Your task to perform on an android device: Open calendar and show me the second week of next month Image 0: 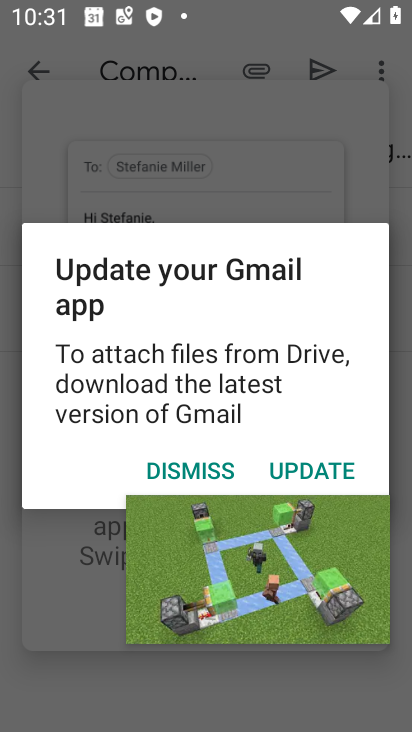
Step 0: click (185, 462)
Your task to perform on an android device: Open calendar and show me the second week of next month Image 1: 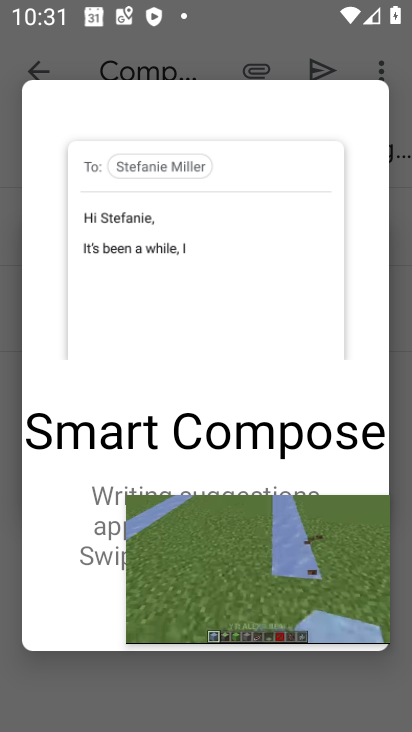
Step 1: click (308, 378)
Your task to perform on an android device: Open calendar and show me the second week of next month Image 2: 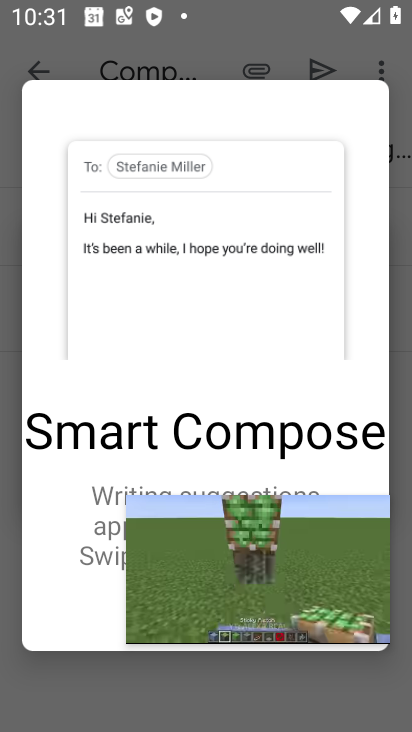
Step 2: click (223, 403)
Your task to perform on an android device: Open calendar and show me the second week of next month Image 3: 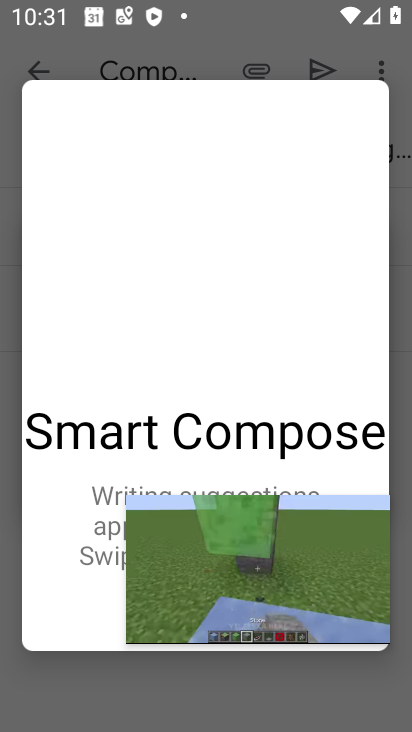
Step 3: click (223, 403)
Your task to perform on an android device: Open calendar and show me the second week of next month Image 4: 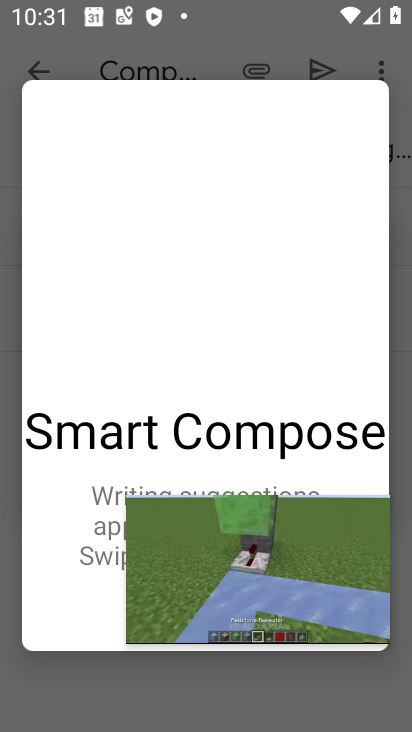
Step 4: click (223, 405)
Your task to perform on an android device: Open calendar and show me the second week of next month Image 5: 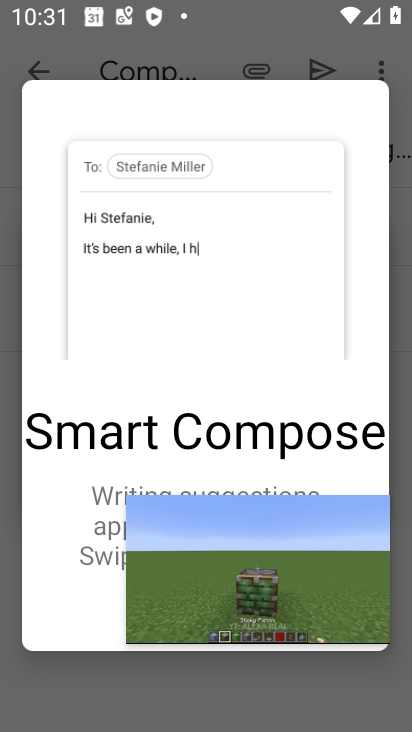
Step 5: click (230, 447)
Your task to perform on an android device: Open calendar and show me the second week of next month Image 6: 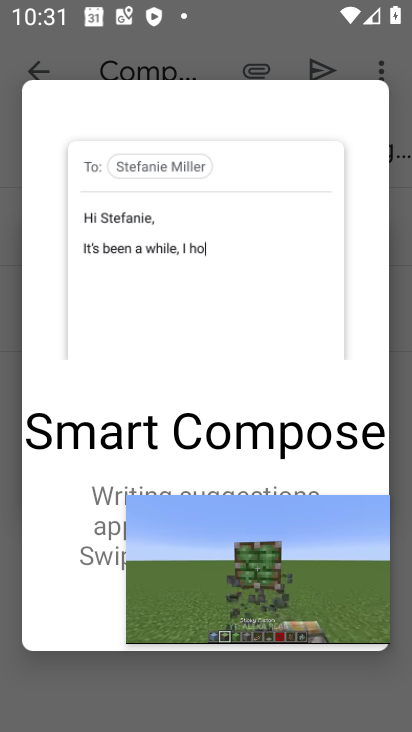
Step 6: click (230, 447)
Your task to perform on an android device: Open calendar and show me the second week of next month Image 7: 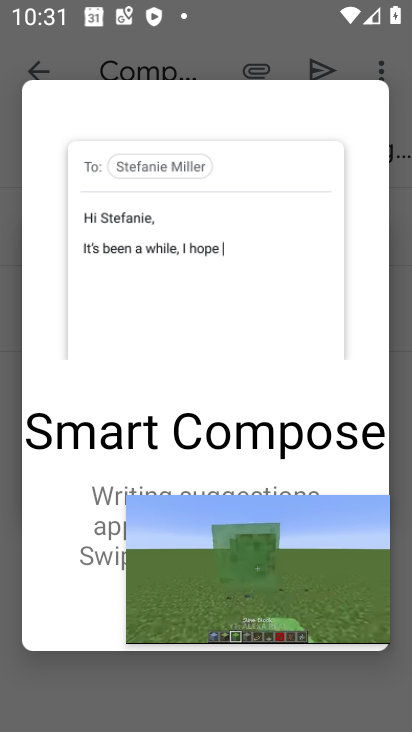
Step 7: click (231, 447)
Your task to perform on an android device: Open calendar and show me the second week of next month Image 8: 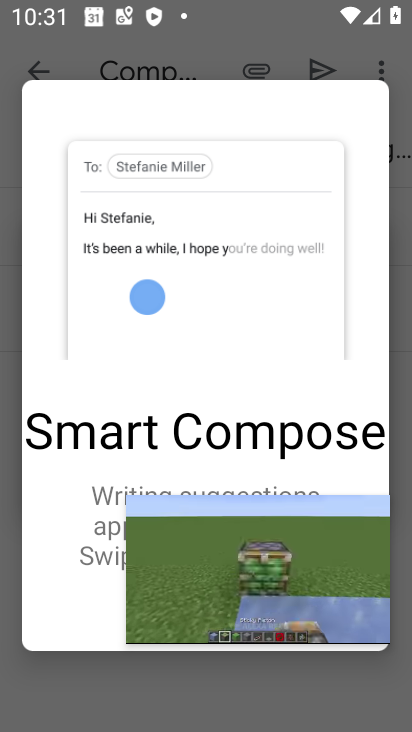
Step 8: click (44, 577)
Your task to perform on an android device: Open calendar and show me the second week of next month Image 9: 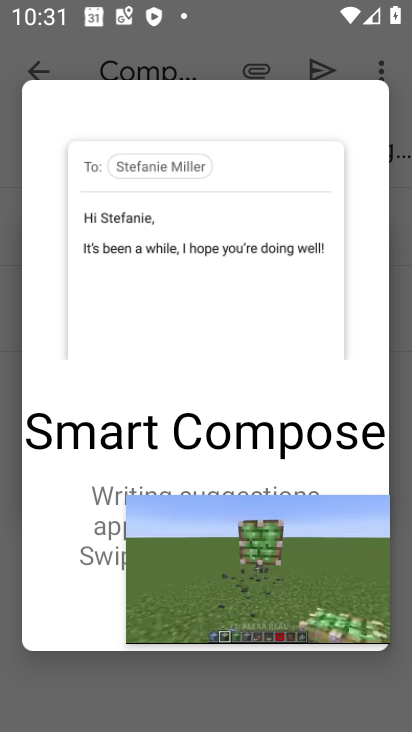
Step 9: click (43, 565)
Your task to perform on an android device: Open calendar and show me the second week of next month Image 10: 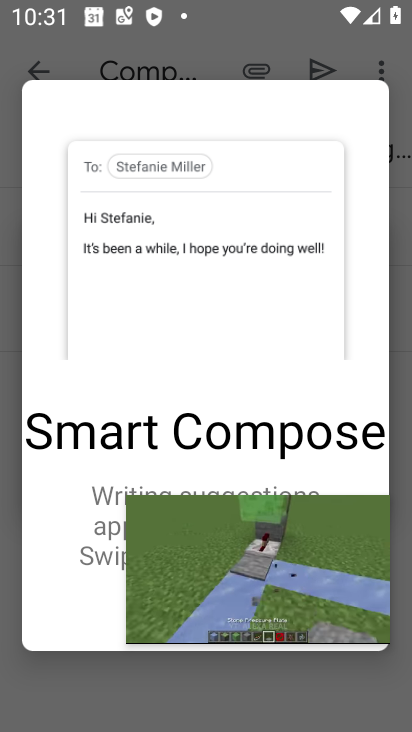
Step 10: click (90, 579)
Your task to perform on an android device: Open calendar and show me the second week of next month Image 11: 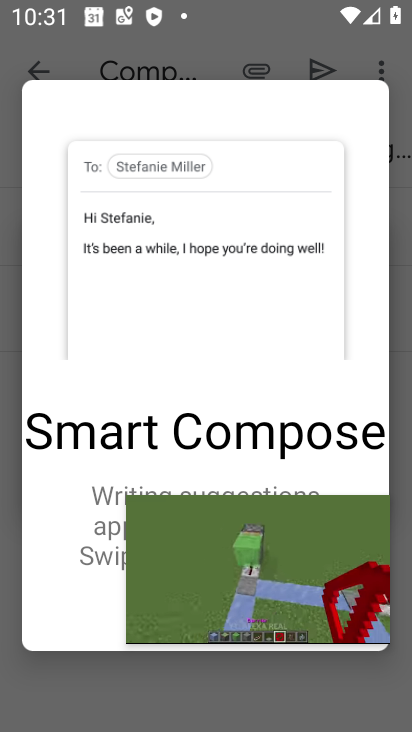
Step 11: click (132, 569)
Your task to perform on an android device: Open calendar and show me the second week of next month Image 12: 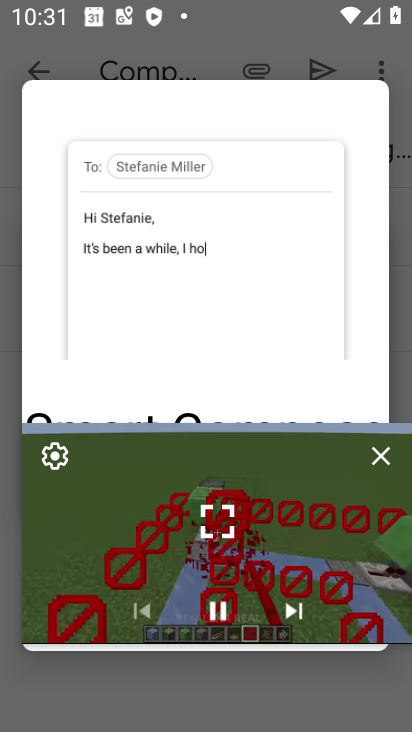
Step 12: click (397, 467)
Your task to perform on an android device: Open calendar and show me the second week of next month Image 13: 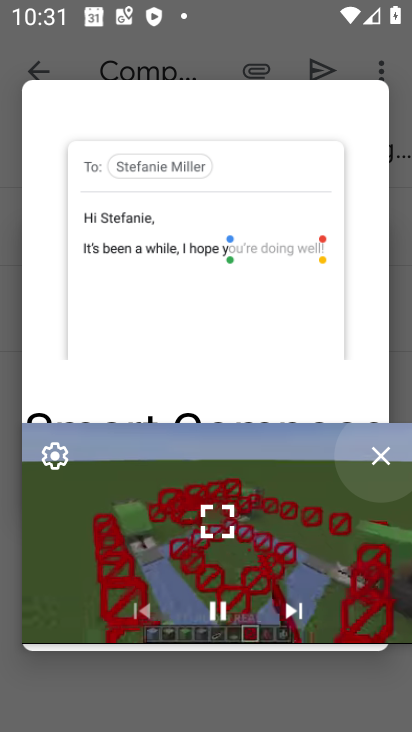
Step 13: click (375, 434)
Your task to perform on an android device: Open calendar and show me the second week of next month Image 14: 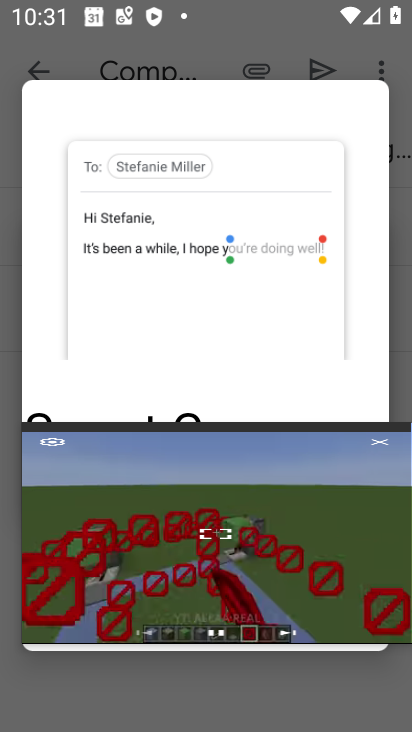
Step 14: click (380, 445)
Your task to perform on an android device: Open calendar and show me the second week of next month Image 15: 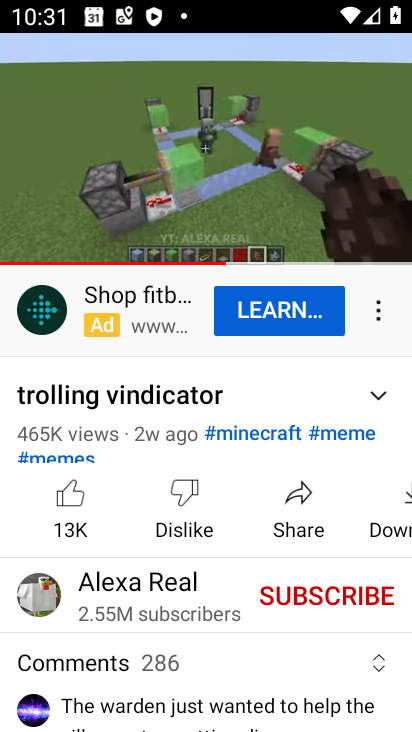
Step 15: press home button
Your task to perform on an android device: Open calendar and show me the second week of next month Image 16: 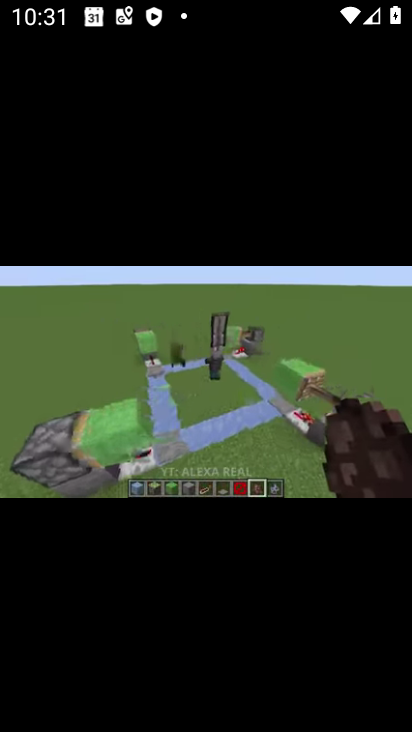
Step 16: press home button
Your task to perform on an android device: Open calendar and show me the second week of next month Image 17: 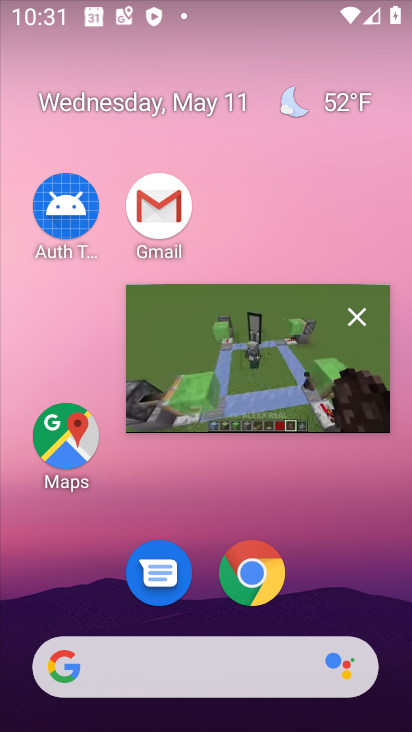
Step 17: press home button
Your task to perform on an android device: Open calendar and show me the second week of next month Image 18: 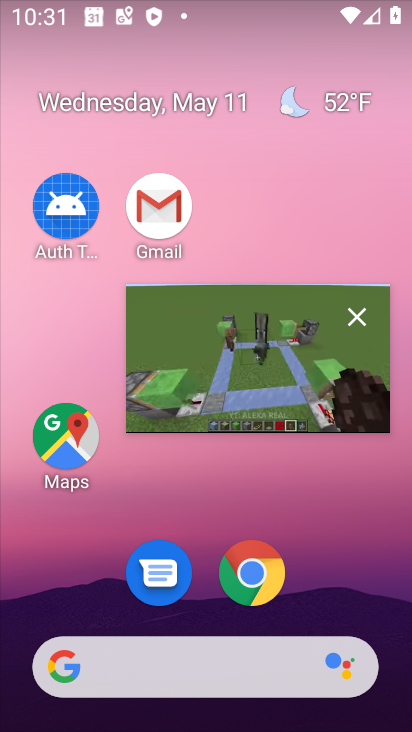
Step 18: press home button
Your task to perform on an android device: Open calendar and show me the second week of next month Image 19: 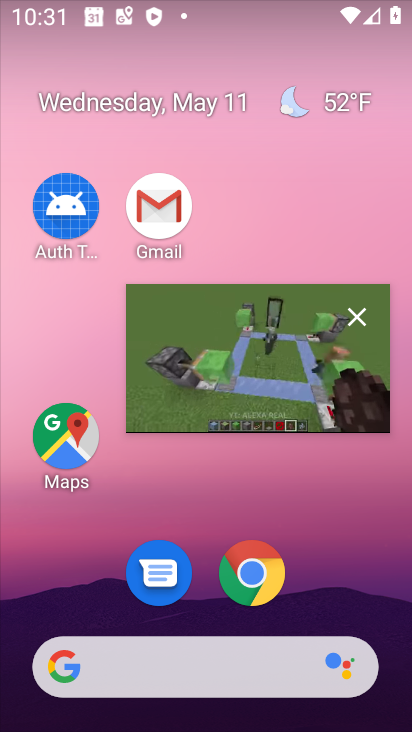
Step 19: press home button
Your task to perform on an android device: Open calendar and show me the second week of next month Image 20: 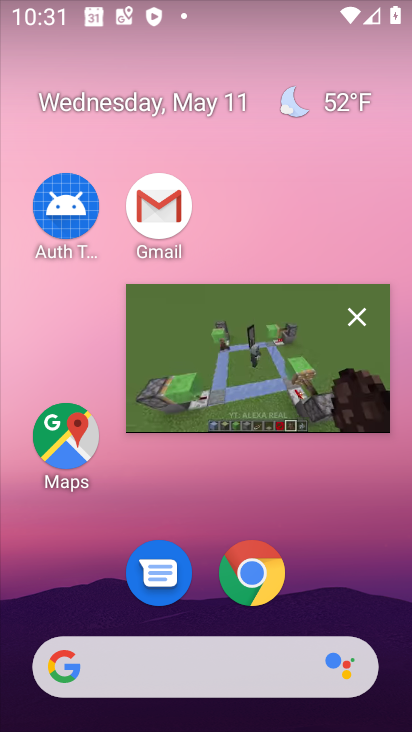
Step 20: press home button
Your task to perform on an android device: Open calendar and show me the second week of next month Image 21: 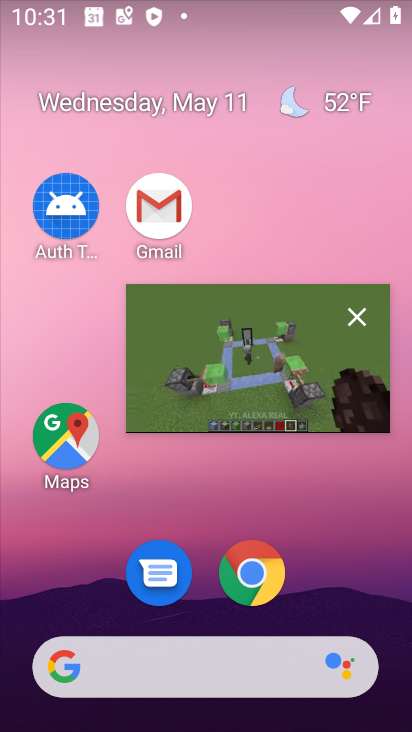
Step 21: press home button
Your task to perform on an android device: Open calendar and show me the second week of next month Image 22: 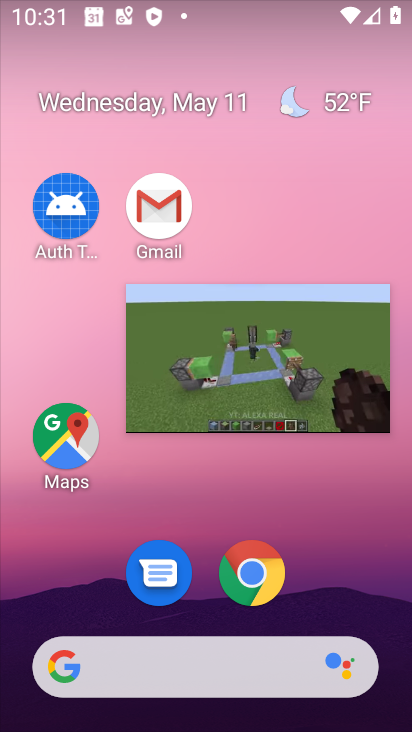
Step 22: press home button
Your task to perform on an android device: Open calendar and show me the second week of next month Image 23: 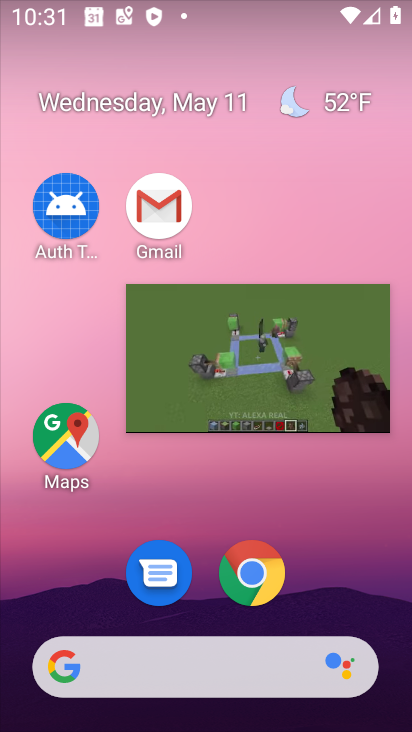
Step 23: click (361, 313)
Your task to perform on an android device: Open calendar and show me the second week of next month Image 24: 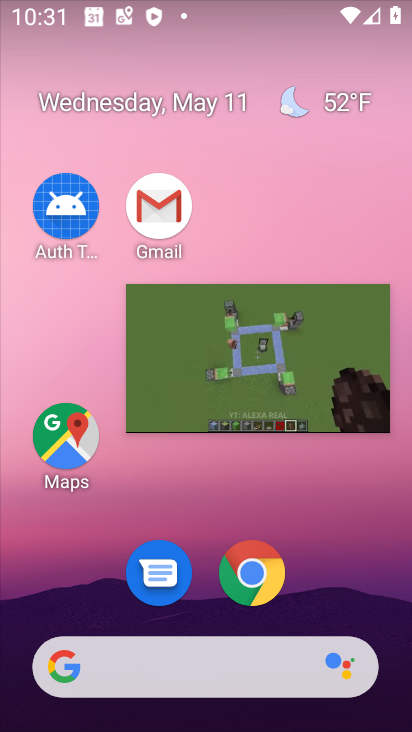
Step 24: click (352, 487)
Your task to perform on an android device: Open calendar and show me the second week of next month Image 25: 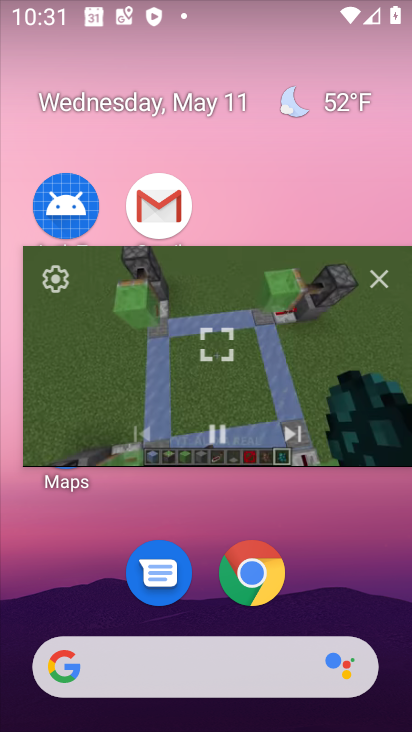
Step 25: click (387, 276)
Your task to perform on an android device: Open calendar and show me the second week of next month Image 26: 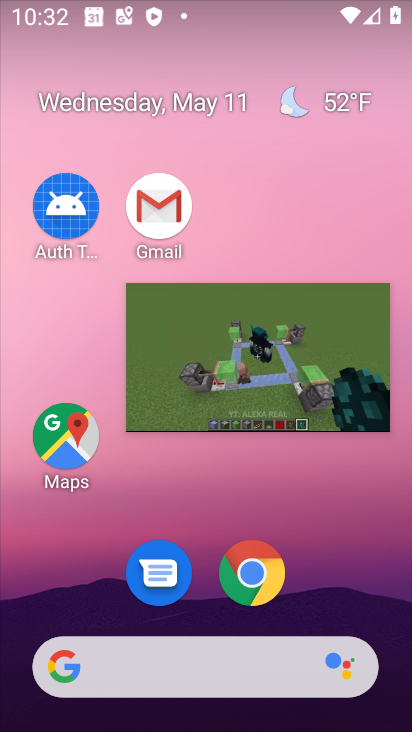
Step 26: press home button
Your task to perform on an android device: Open calendar and show me the second week of next month Image 27: 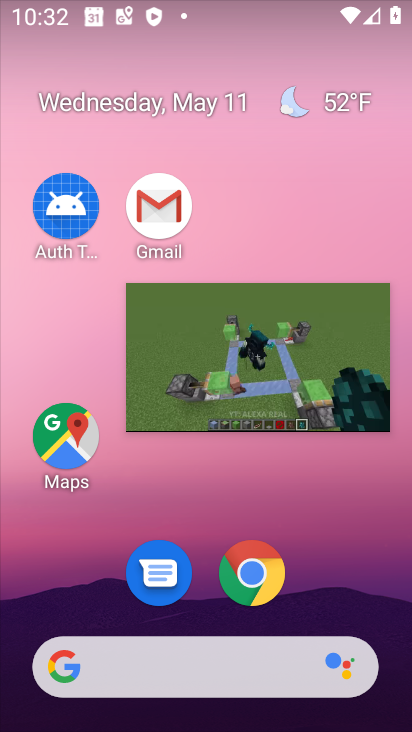
Step 27: drag from (334, 527) to (298, 444)
Your task to perform on an android device: Open calendar and show me the second week of next month Image 28: 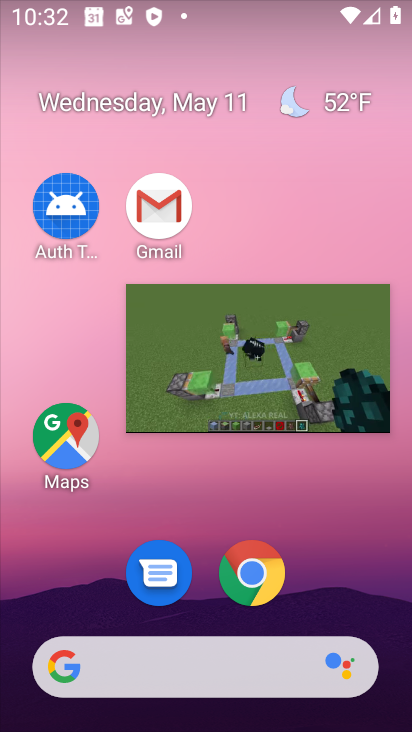
Step 28: click (271, 401)
Your task to perform on an android device: Open calendar and show me the second week of next month Image 29: 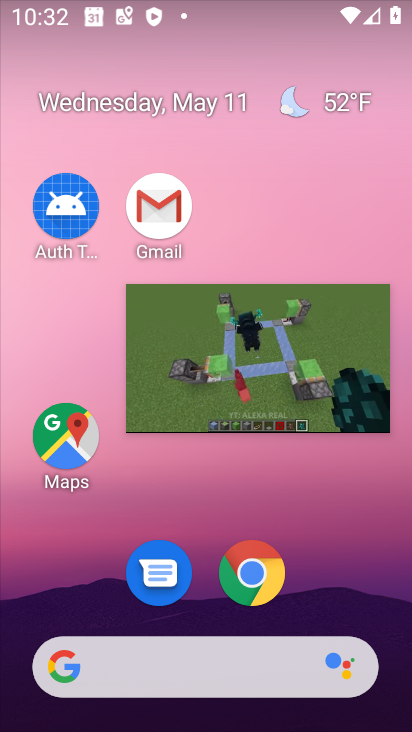
Step 29: click (265, 423)
Your task to perform on an android device: Open calendar and show me the second week of next month Image 30: 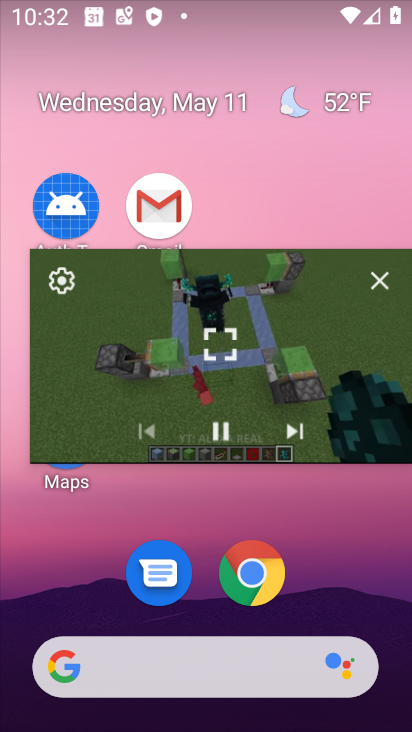
Step 30: click (258, 408)
Your task to perform on an android device: Open calendar and show me the second week of next month Image 31: 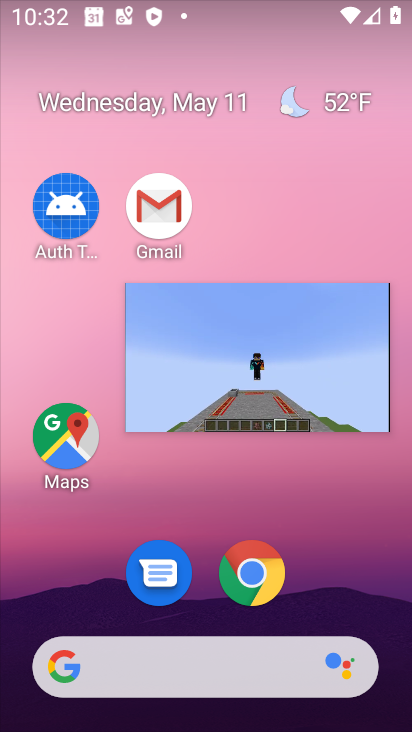
Step 31: click (244, 405)
Your task to perform on an android device: Open calendar and show me the second week of next month Image 32: 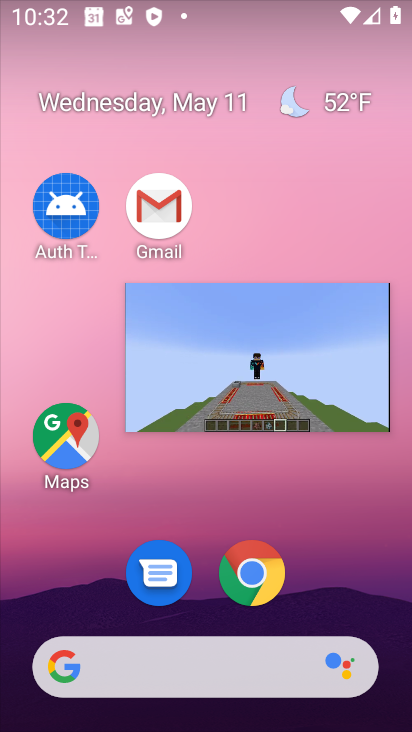
Step 32: click (266, 364)
Your task to perform on an android device: Open calendar and show me the second week of next month Image 33: 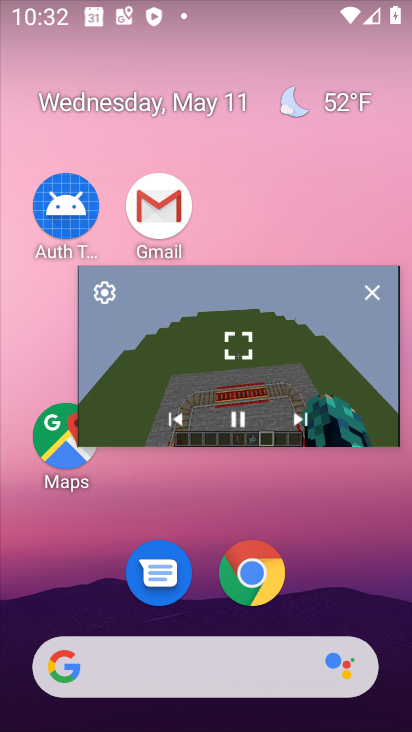
Step 33: click (266, 364)
Your task to perform on an android device: Open calendar and show me the second week of next month Image 34: 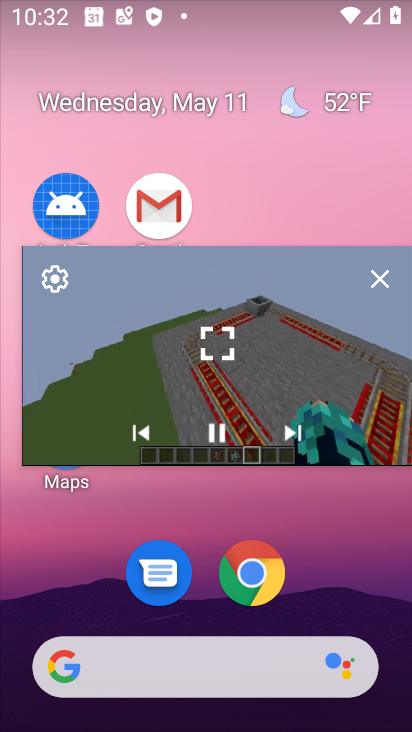
Step 34: click (268, 373)
Your task to perform on an android device: Open calendar and show me the second week of next month Image 35: 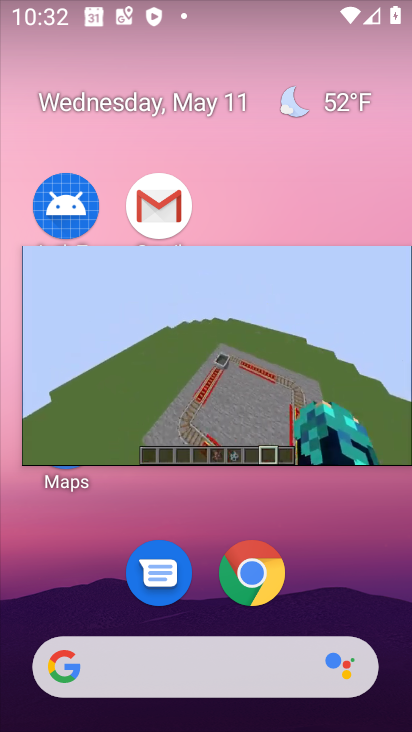
Step 35: click (222, 428)
Your task to perform on an android device: Open calendar and show me the second week of next month Image 36: 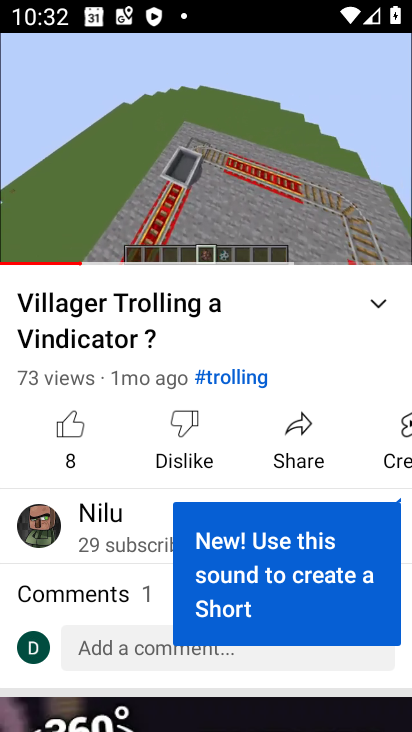
Step 36: press back button
Your task to perform on an android device: Open calendar and show me the second week of next month Image 37: 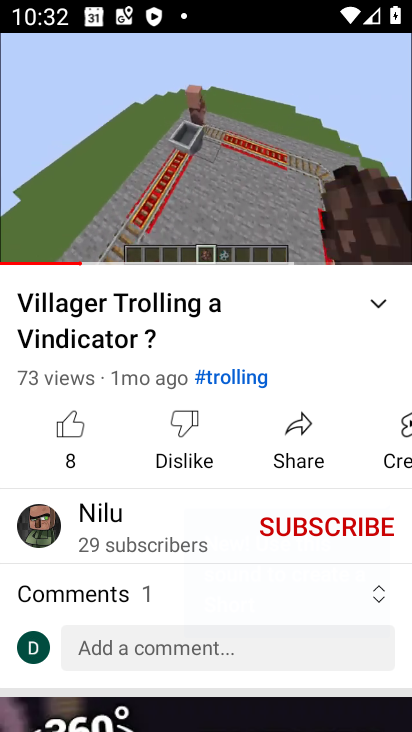
Step 37: press back button
Your task to perform on an android device: Open calendar and show me the second week of next month Image 38: 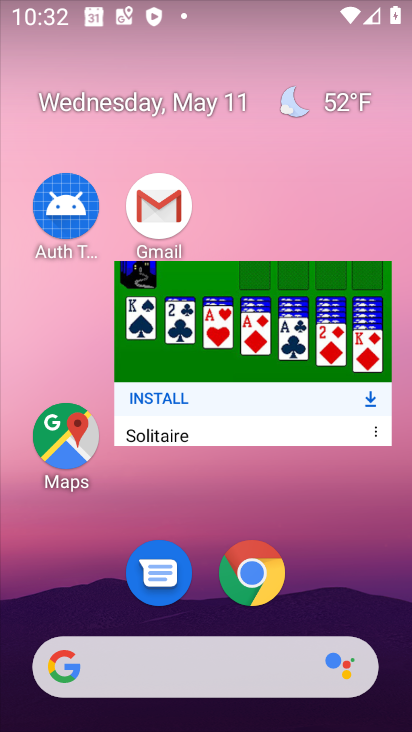
Step 38: press back button
Your task to perform on an android device: Open calendar and show me the second week of next month Image 39: 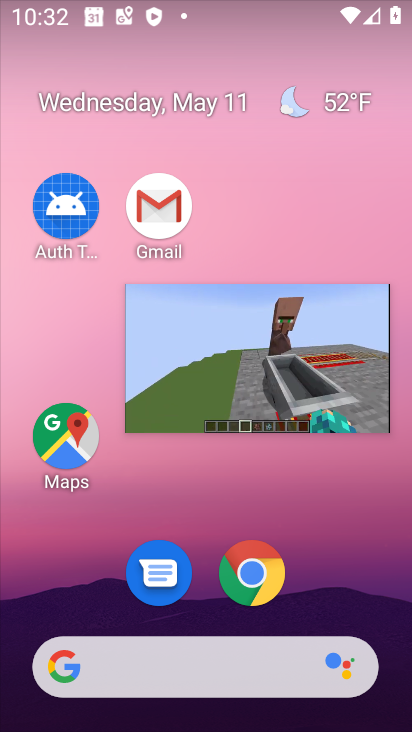
Step 39: press back button
Your task to perform on an android device: Open calendar and show me the second week of next month Image 40: 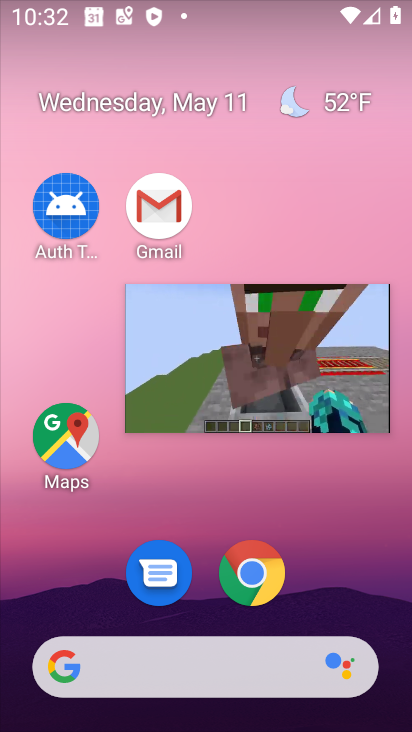
Step 40: click (318, 338)
Your task to perform on an android device: Open calendar and show me the second week of next month Image 41: 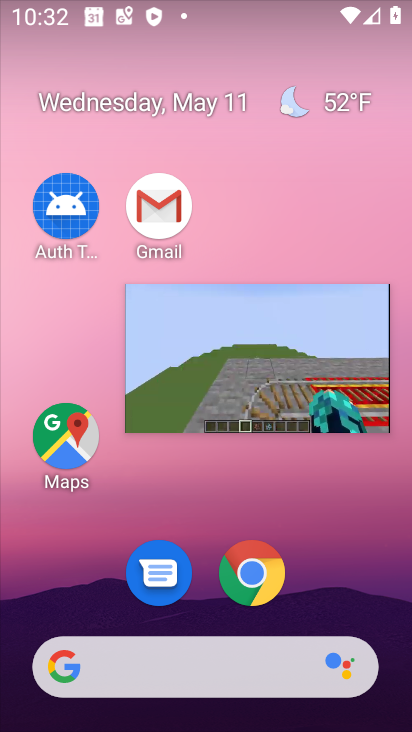
Step 41: click (318, 338)
Your task to perform on an android device: Open calendar and show me the second week of next month Image 42: 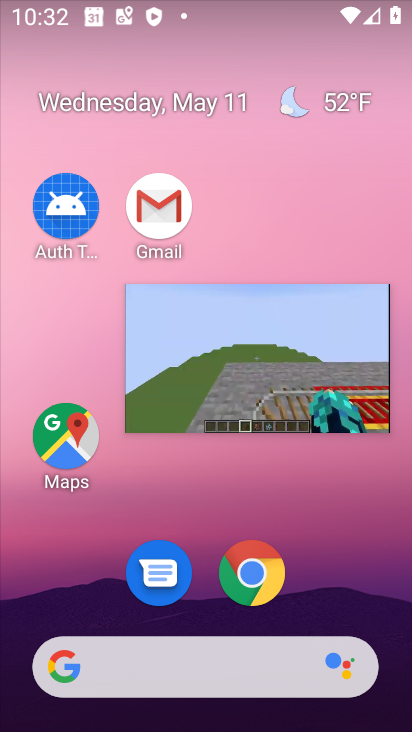
Step 42: click (319, 337)
Your task to perform on an android device: Open calendar and show me the second week of next month Image 43: 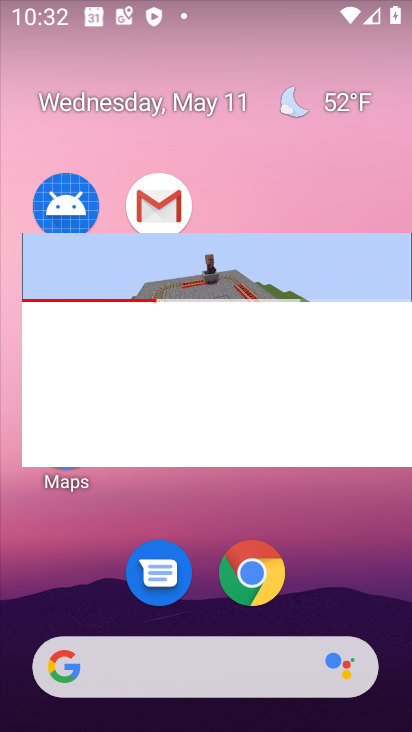
Step 43: click (387, 275)
Your task to perform on an android device: Open calendar and show me the second week of next month Image 44: 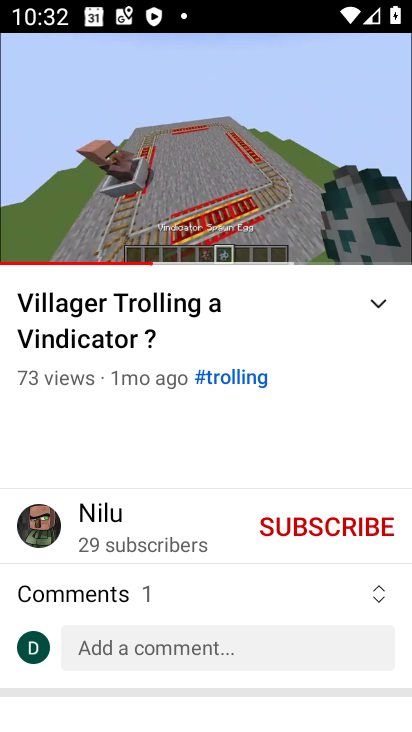
Step 44: click (387, 275)
Your task to perform on an android device: Open calendar and show me the second week of next month Image 45: 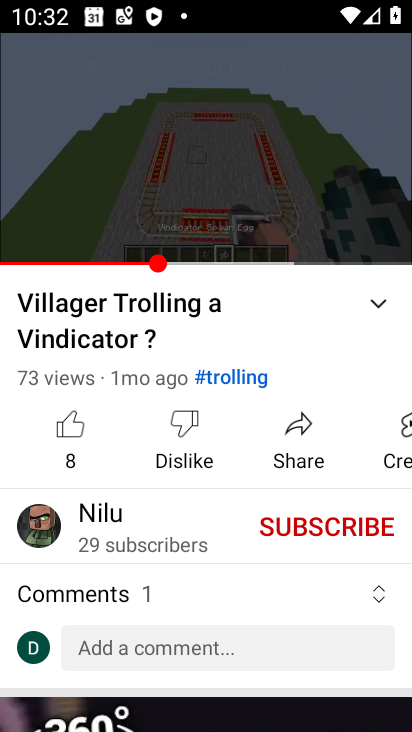
Step 45: click (387, 276)
Your task to perform on an android device: Open calendar and show me the second week of next month Image 46: 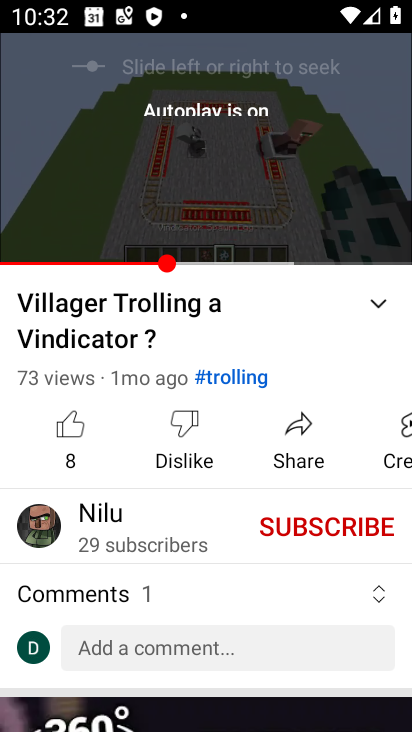
Step 46: click (388, 302)
Your task to perform on an android device: Open calendar and show me the second week of next month Image 47: 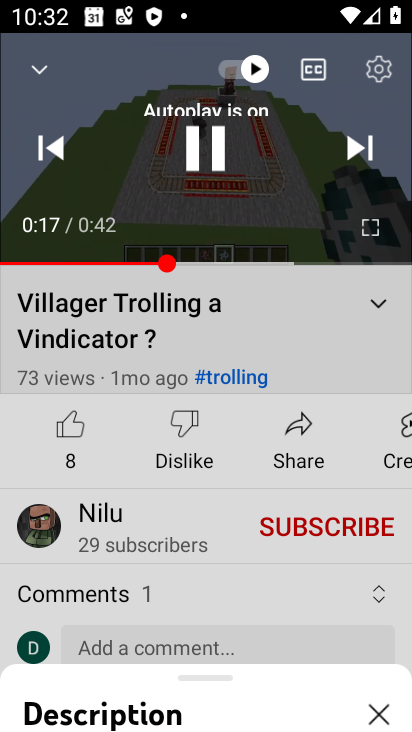
Step 47: click (388, 303)
Your task to perform on an android device: Open calendar and show me the second week of next month Image 48: 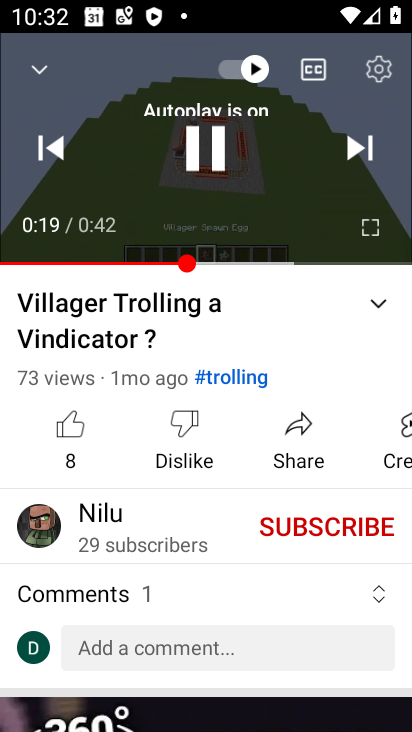
Step 48: click (217, 148)
Your task to perform on an android device: Open calendar and show me the second week of next month Image 49: 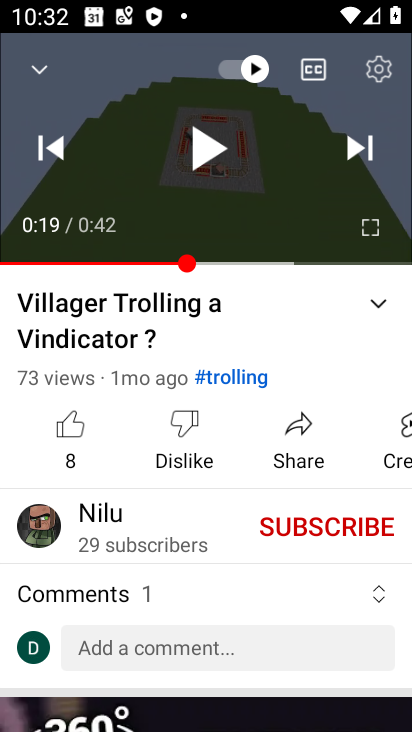
Step 49: press back button
Your task to perform on an android device: Open calendar and show me the second week of next month Image 50: 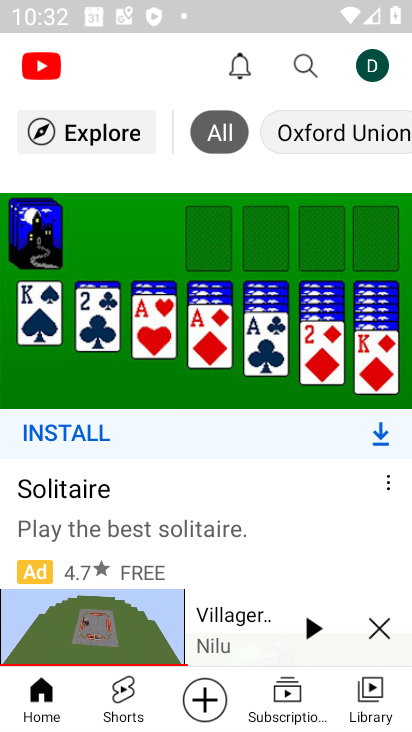
Step 50: press back button
Your task to perform on an android device: Open calendar and show me the second week of next month Image 51: 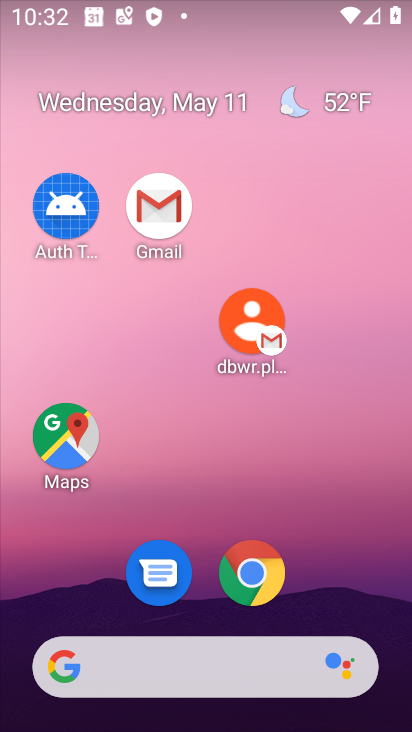
Step 51: drag from (392, 615) to (239, 189)
Your task to perform on an android device: Open calendar and show me the second week of next month Image 52: 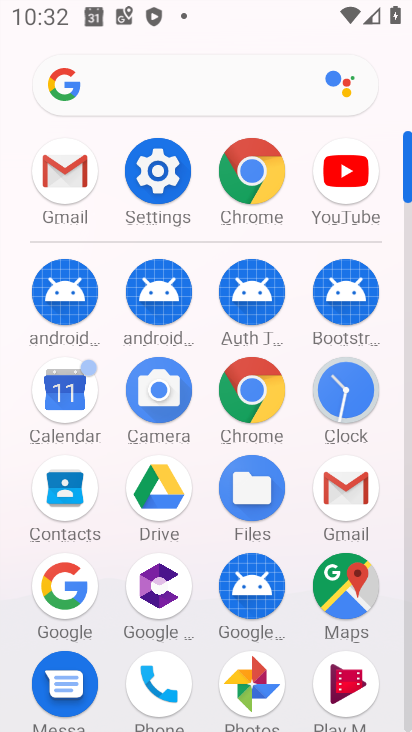
Step 52: click (75, 397)
Your task to perform on an android device: Open calendar and show me the second week of next month Image 53: 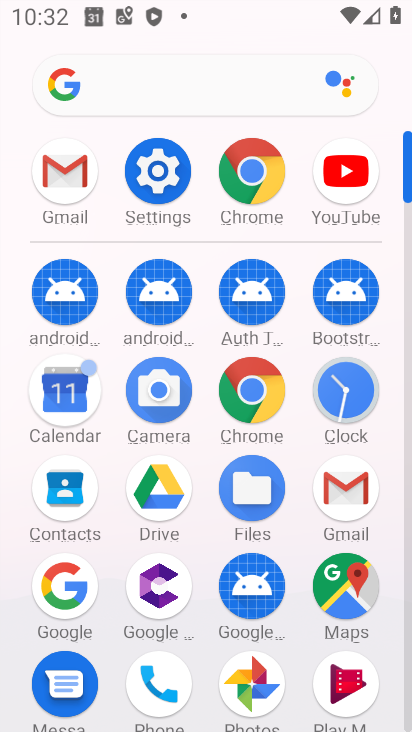
Step 53: click (74, 398)
Your task to perform on an android device: Open calendar and show me the second week of next month Image 54: 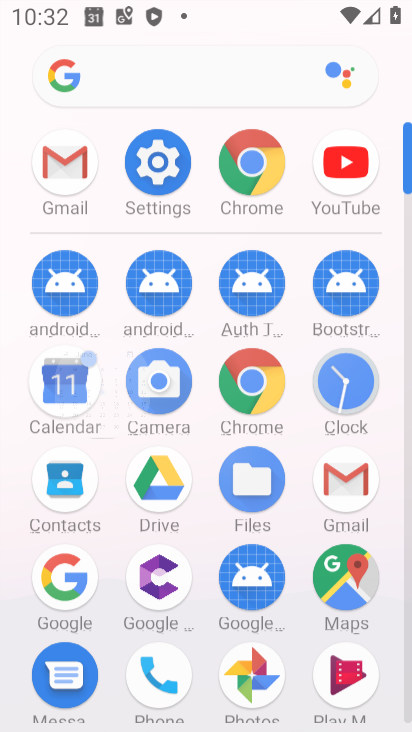
Step 54: click (62, 395)
Your task to perform on an android device: Open calendar and show me the second week of next month Image 55: 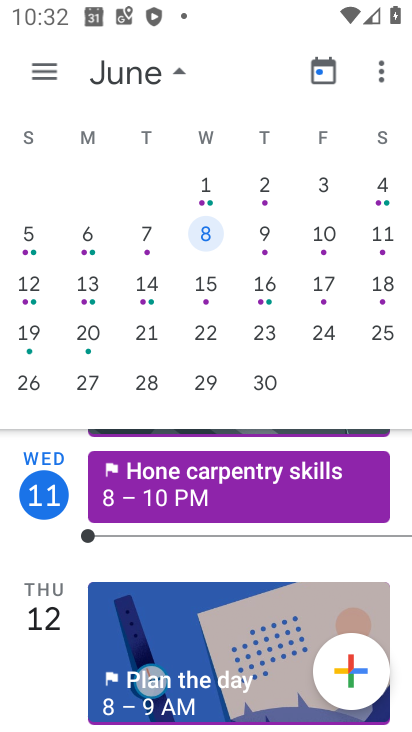
Step 55: click (62, 395)
Your task to perform on an android device: Open calendar and show me the second week of next month Image 56: 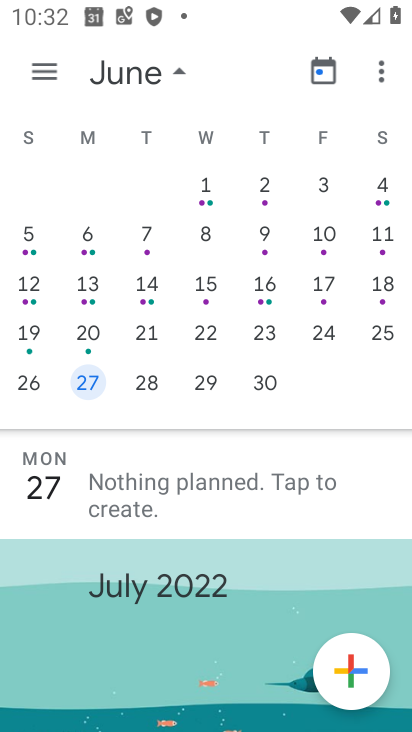
Step 56: click (202, 240)
Your task to perform on an android device: Open calendar and show me the second week of next month Image 57: 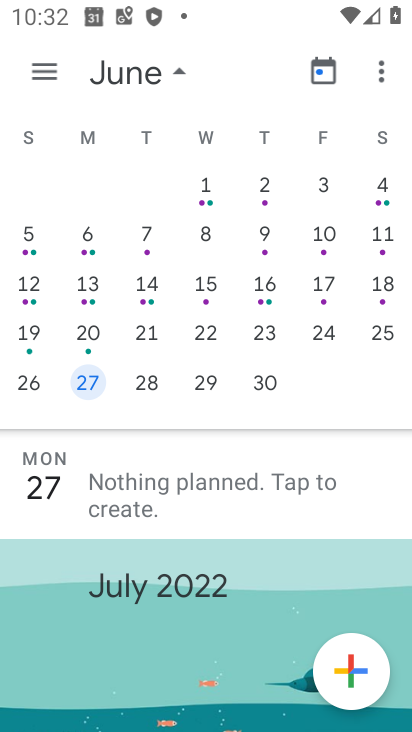
Step 57: click (202, 240)
Your task to perform on an android device: Open calendar and show me the second week of next month Image 58: 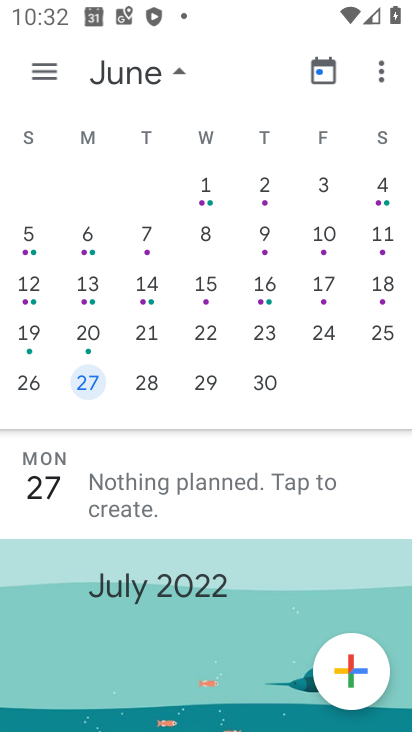
Step 58: click (201, 240)
Your task to perform on an android device: Open calendar and show me the second week of next month Image 59: 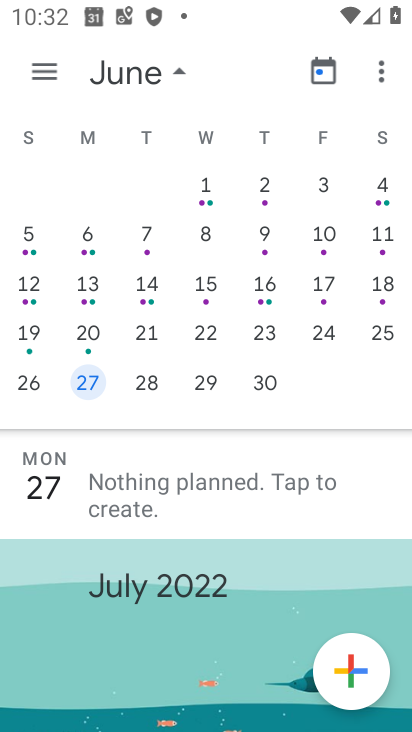
Step 59: click (201, 240)
Your task to perform on an android device: Open calendar and show me the second week of next month Image 60: 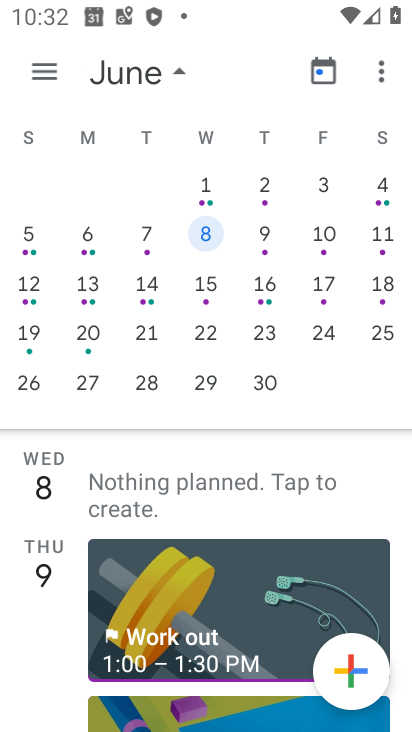
Step 60: click (203, 227)
Your task to perform on an android device: Open calendar and show me the second week of next month Image 61: 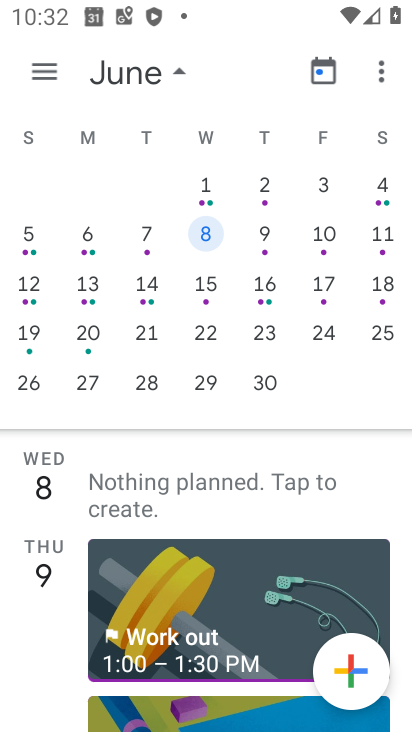
Step 61: task complete